Your task to perform on an android device: Open calendar and show me the fourth week of next month Image 0: 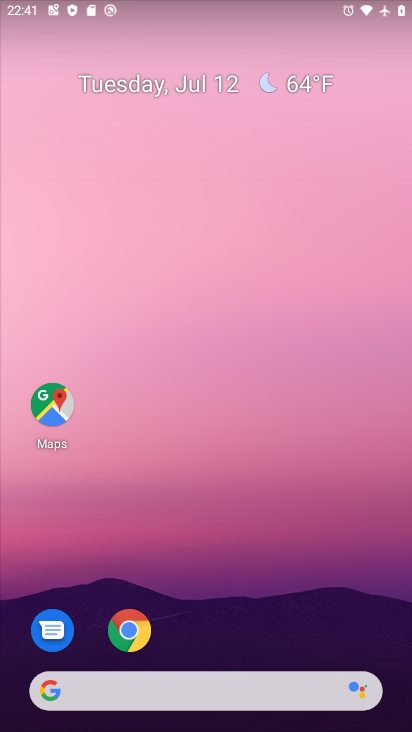
Step 0: drag from (193, 644) to (218, 37)
Your task to perform on an android device: Open calendar and show me the fourth week of next month Image 1: 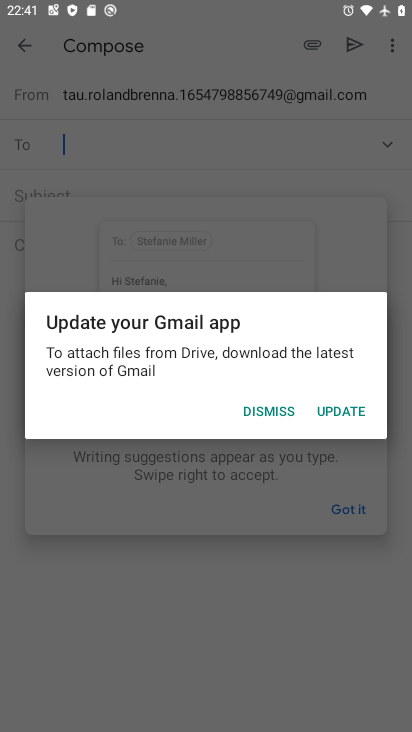
Step 1: press home button
Your task to perform on an android device: Open calendar and show me the fourth week of next month Image 2: 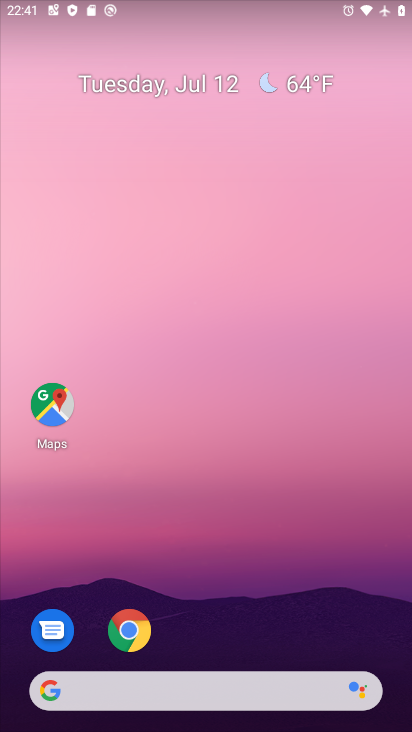
Step 2: drag from (210, 652) to (28, 511)
Your task to perform on an android device: Open calendar and show me the fourth week of next month Image 3: 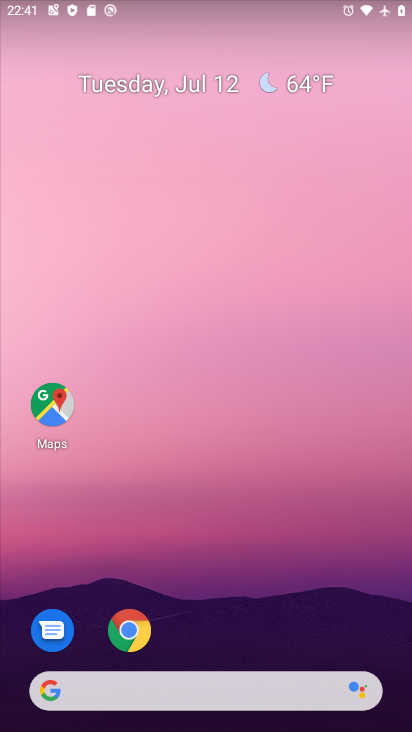
Step 3: drag from (217, 660) to (212, 5)
Your task to perform on an android device: Open calendar and show me the fourth week of next month Image 4: 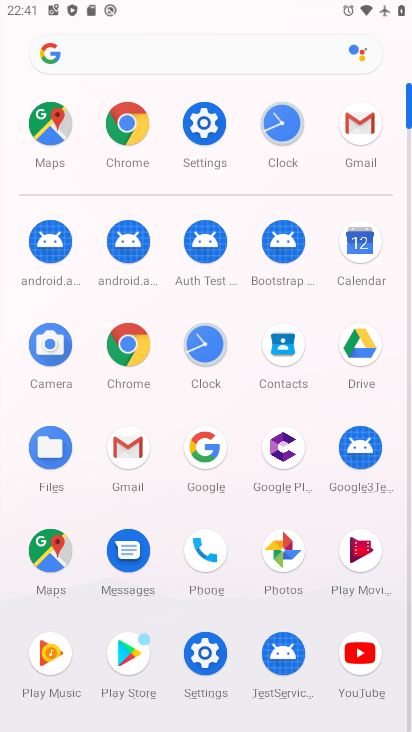
Step 4: click (349, 241)
Your task to perform on an android device: Open calendar and show me the fourth week of next month Image 5: 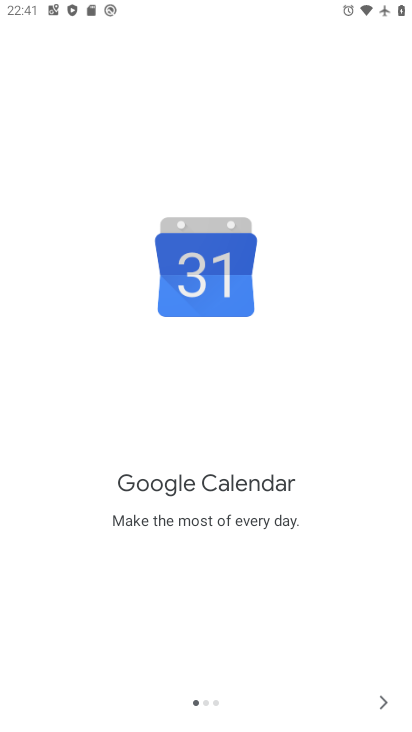
Step 5: click (392, 698)
Your task to perform on an android device: Open calendar and show me the fourth week of next month Image 6: 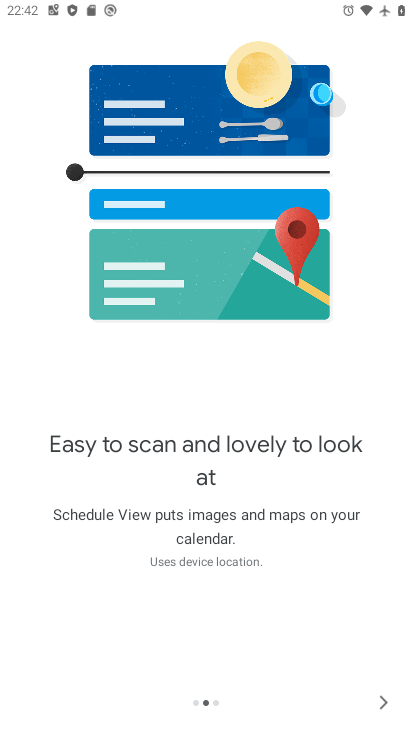
Step 6: click (381, 701)
Your task to perform on an android device: Open calendar and show me the fourth week of next month Image 7: 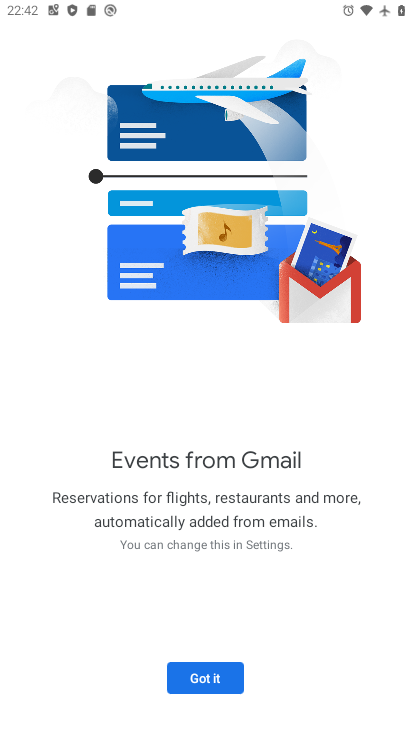
Step 7: click (215, 682)
Your task to perform on an android device: Open calendar and show me the fourth week of next month Image 8: 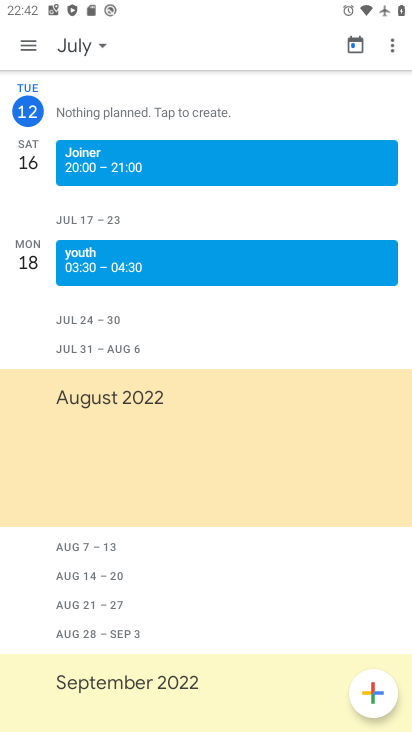
Step 8: click (25, 33)
Your task to perform on an android device: Open calendar and show me the fourth week of next month Image 9: 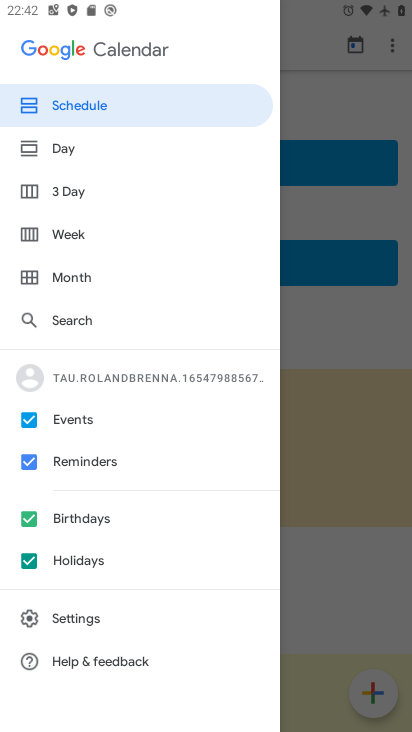
Step 9: click (101, 232)
Your task to perform on an android device: Open calendar and show me the fourth week of next month Image 10: 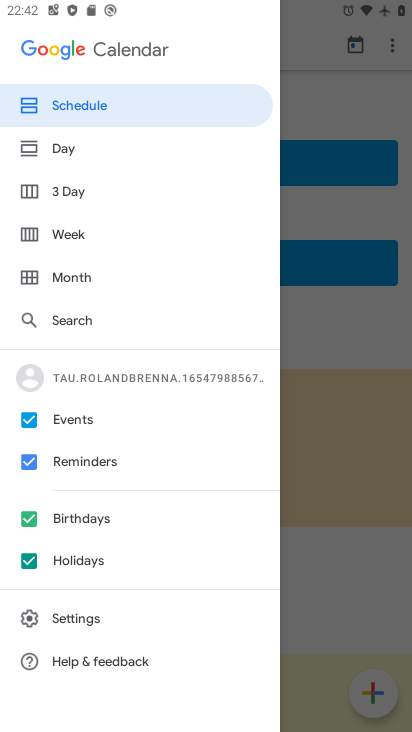
Step 10: click (67, 237)
Your task to perform on an android device: Open calendar and show me the fourth week of next month Image 11: 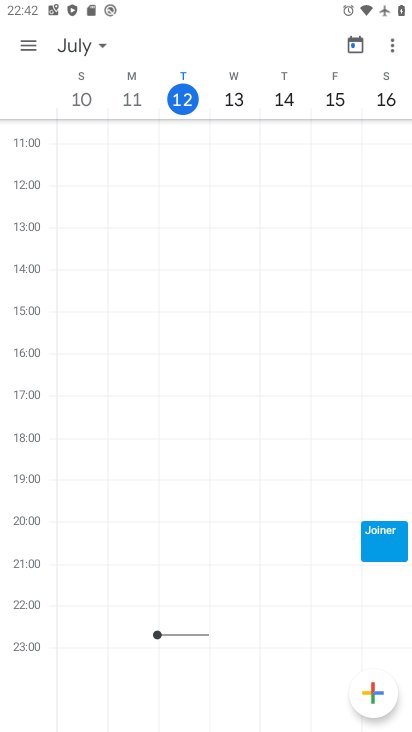
Step 11: task complete